Your task to perform on an android device: Open network settings Image 0: 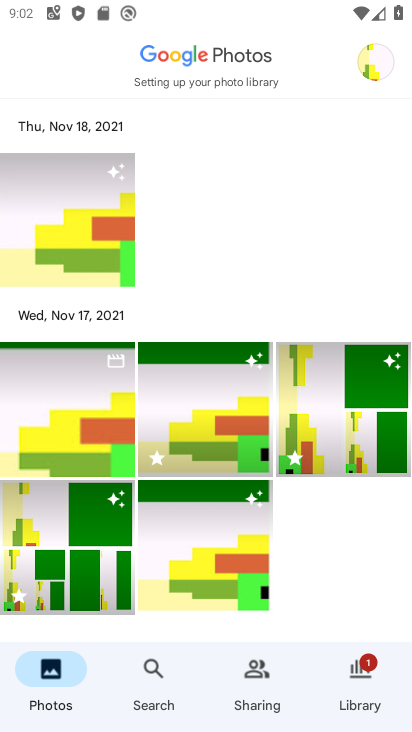
Step 0: press home button
Your task to perform on an android device: Open network settings Image 1: 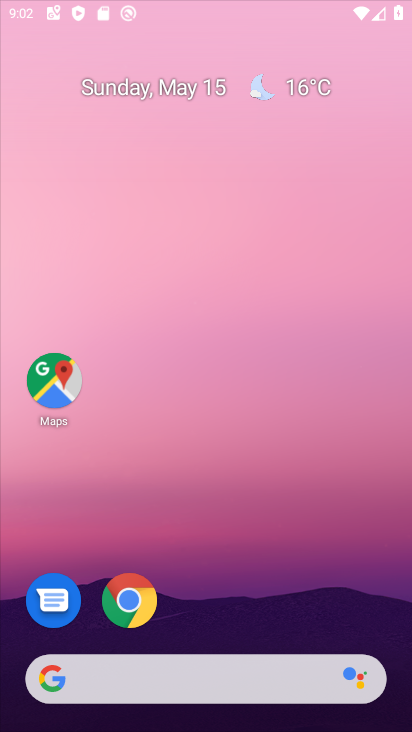
Step 1: drag from (221, 577) to (334, 77)
Your task to perform on an android device: Open network settings Image 2: 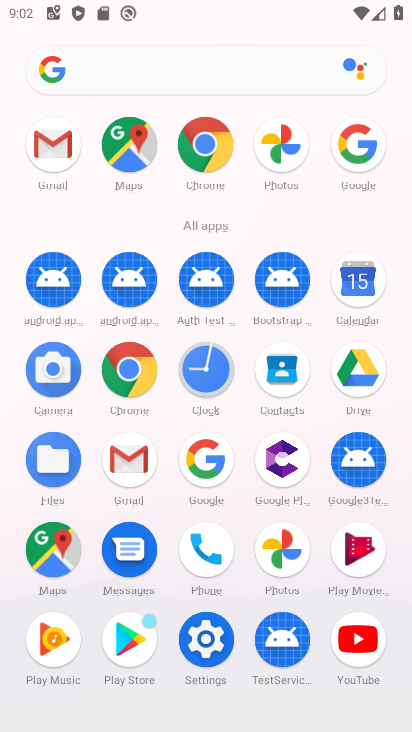
Step 2: click (201, 639)
Your task to perform on an android device: Open network settings Image 3: 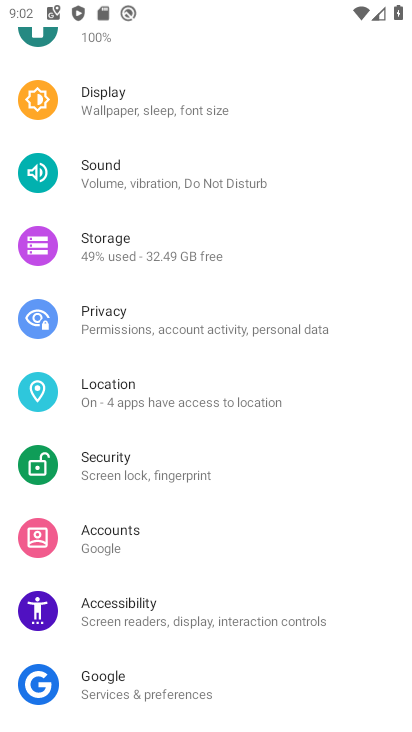
Step 3: drag from (222, 235) to (202, 534)
Your task to perform on an android device: Open network settings Image 4: 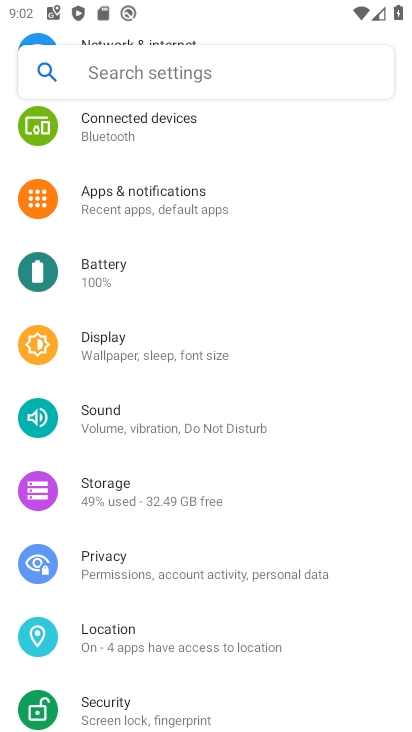
Step 4: drag from (174, 214) to (192, 502)
Your task to perform on an android device: Open network settings Image 5: 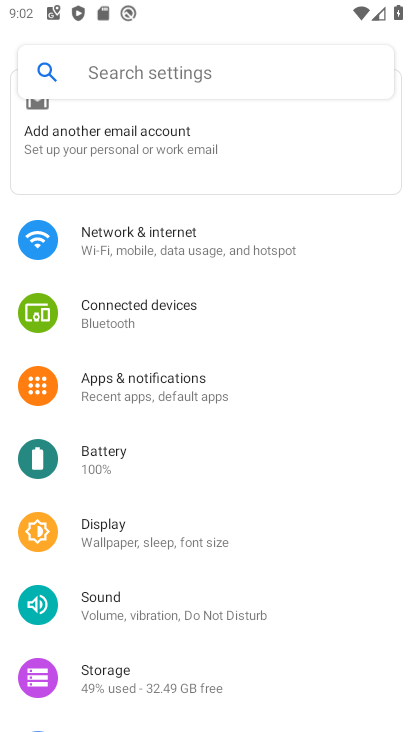
Step 5: click (144, 256)
Your task to perform on an android device: Open network settings Image 6: 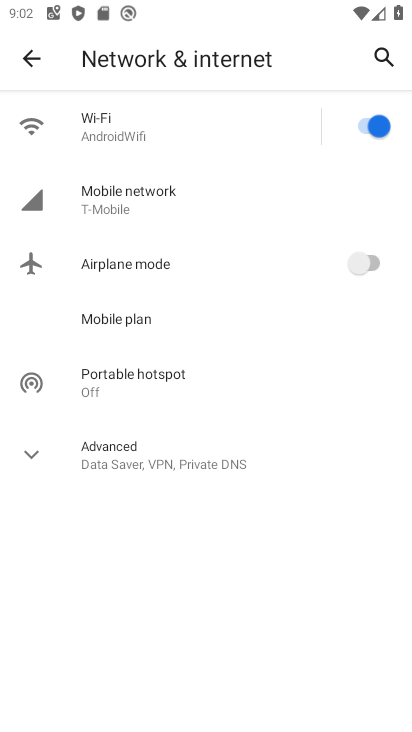
Step 6: click (127, 190)
Your task to perform on an android device: Open network settings Image 7: 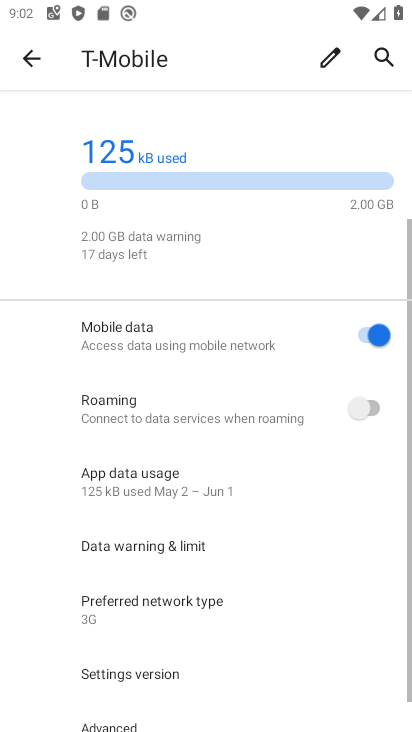
Step 7: task complete